Your task to perform on an android device: change the clock display to show seconds Image 0: 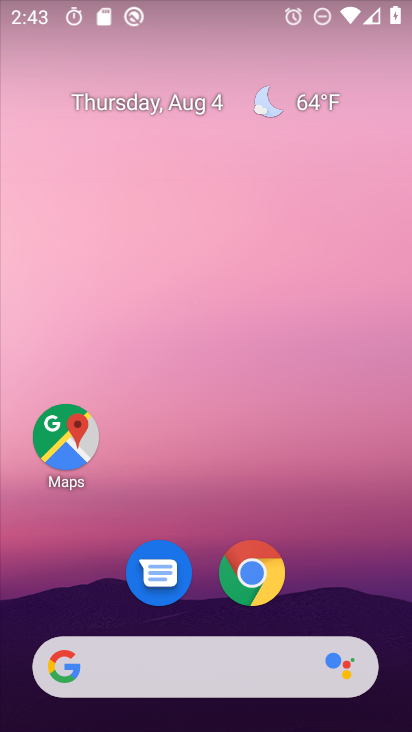
Step 0: drag from (338, 541) to (350, 48)
Your task to perform on an android device: change the clock display to show seconds Image 1: 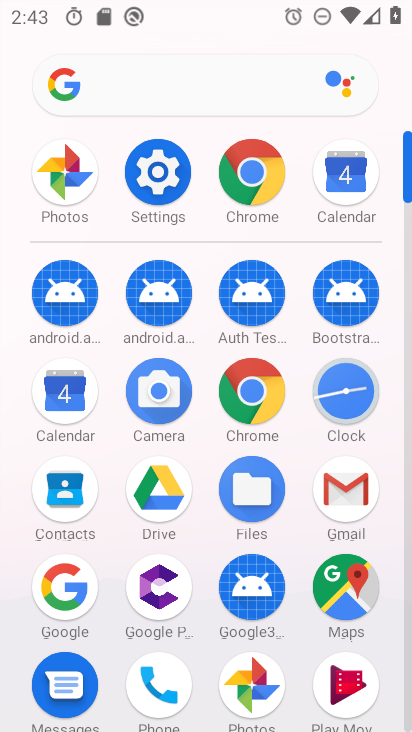
Step 1: click (344, 381)
Your task to perform on an android device: change the clock display to show seconds Image 2: 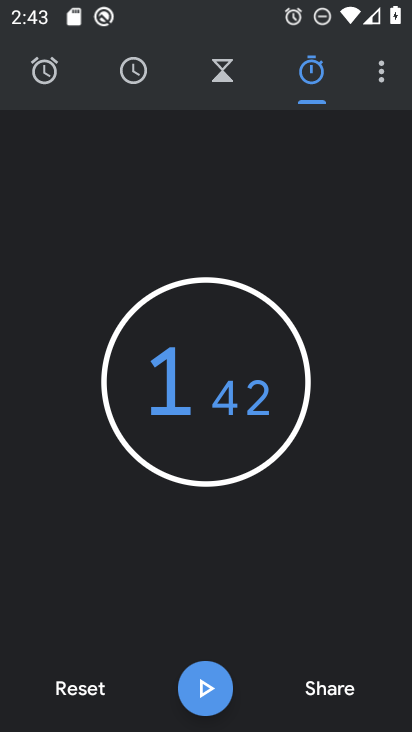
Step 2: click (391, 65)
Your task to perform on an android device: change the clock display to show seconds Image 3: 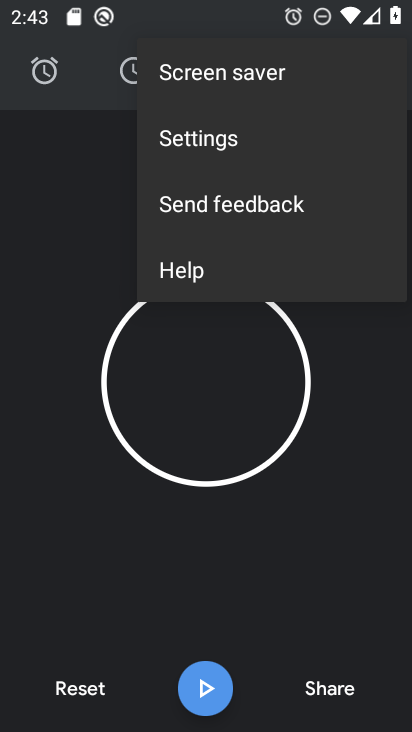
Step 3: click (218, 131)
Your task to perform on an android device: change the clock display to show seconds Image 4: 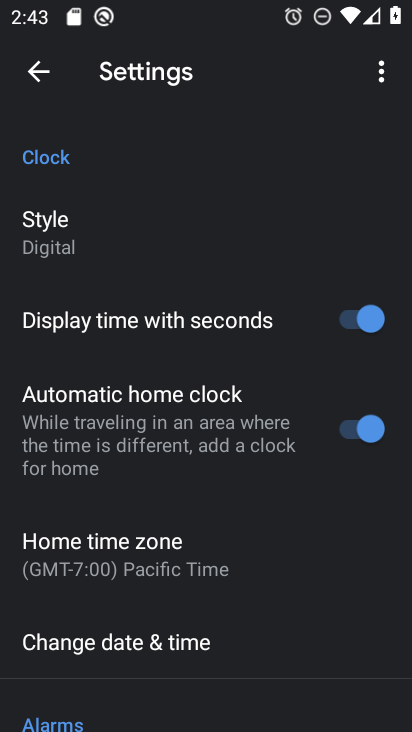
Step 4: task complete